Your task to perform on an android device: allow notifications from all sites in the chrome app Image 0: 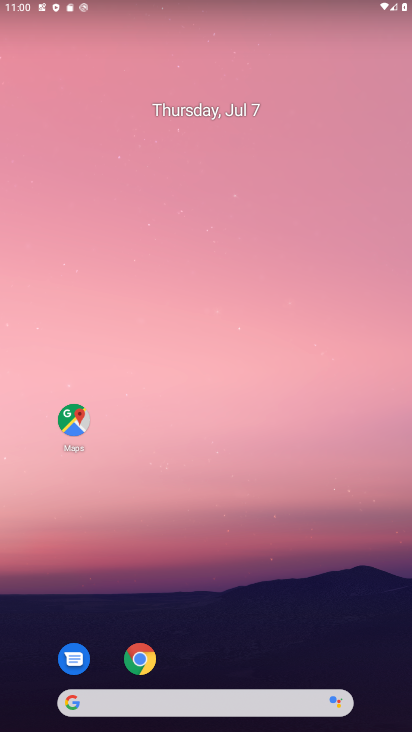
Step 0: press home button
Your task to perform on an android device: allow notifications from all sites in the chrome app Image 1: 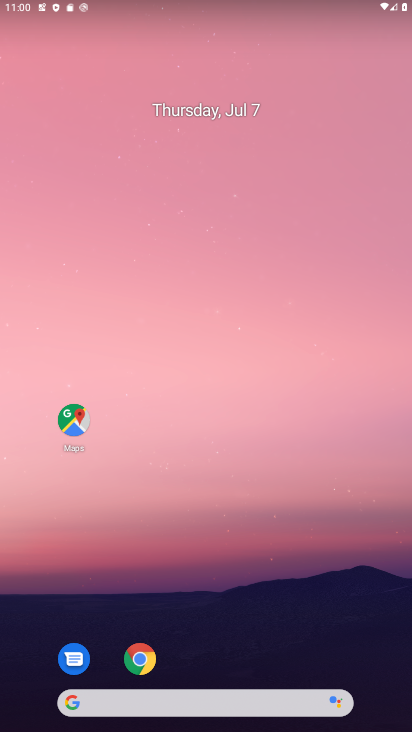
Step 1: click (143, 657)
Your task to perform on an android device: allow notifications from all sites in the chrome app Image 2: 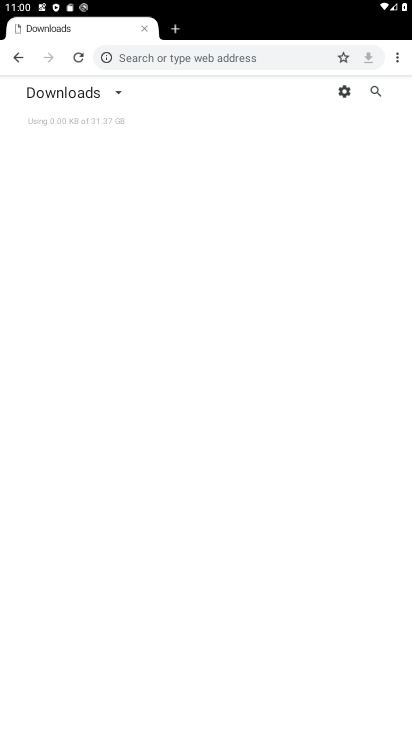
Step 2: click (396, 53)
Your task to perform on an android device: allow notifications from all sites in the chrome app Image 3: 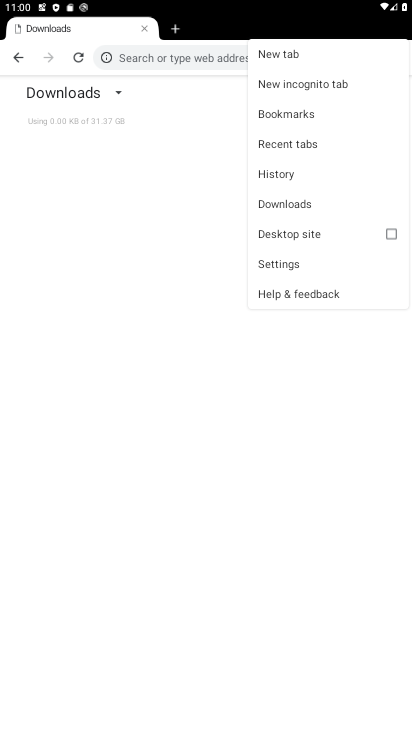
Step 3: click (305, 263)
Your task to perform on an android device: allow notifications from all sites in the chrome app Image 4: 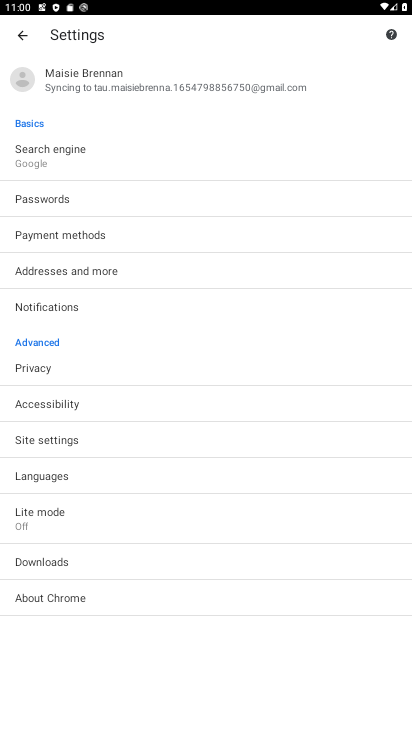
Step 4: click (87, 440)
Your task to perform on an android device: allow notifications from all sites in the chrome app Image 5: 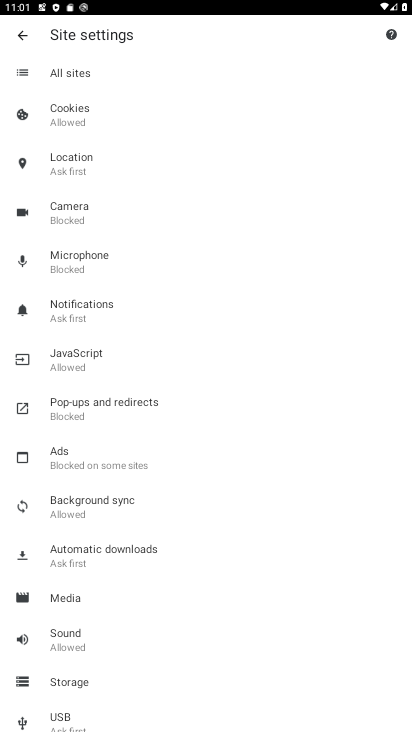
Step 5: click (88, 73)
Your task to perform on an android device: allow notifications from all sites in the chrome app Image 6: 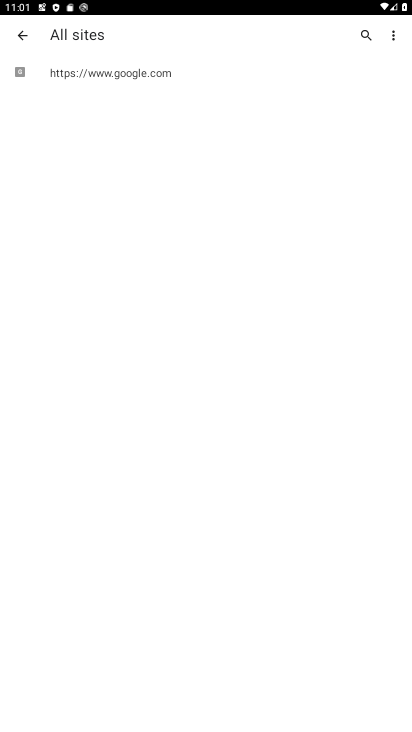
Step 6: click (95, 71)
Your task to perform on an android device: allow notifications from all sites in the chrome app Image 7: 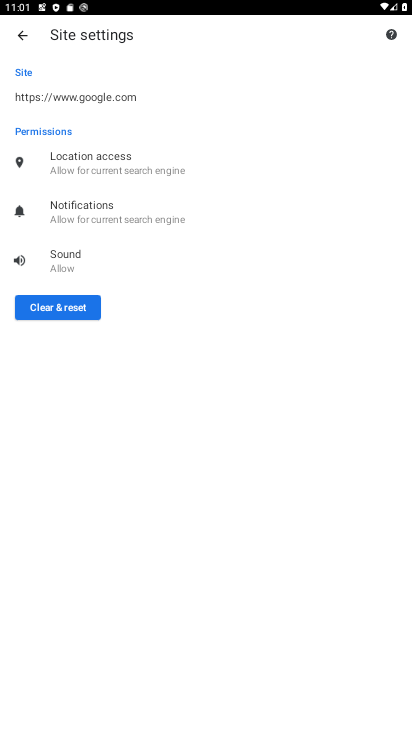
Step 7: task complete